Your task to perform on an android device: Play the last video I watched on Youtube Image 0: 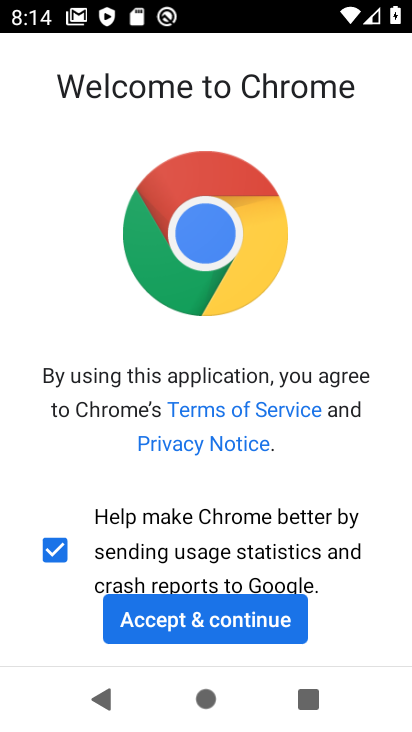
Step 0: press home button
Your task to perform on an android device: Play the last video I watched on Youtube Image 1: 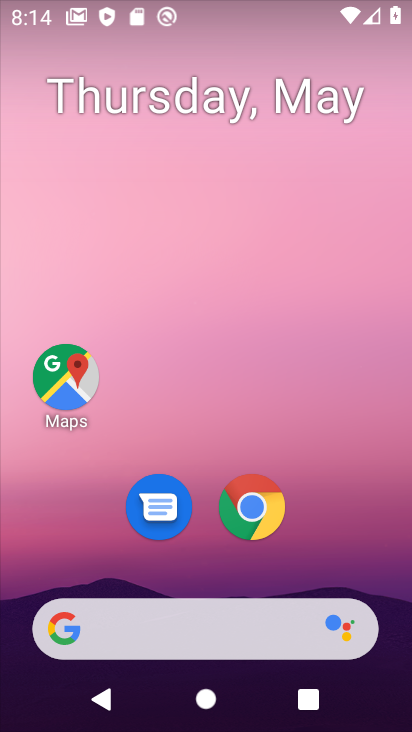
Step 1: drag from (375, 540) to (365, 102)
Your task to perform on an android device: Play the last video I watched on Youtube Image 2: 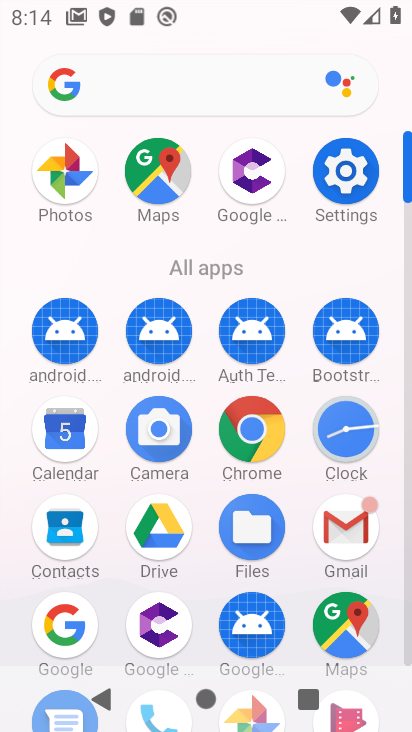
Step 2: drag from (289, 559) to (298, 89)
Your task to perform on an android device: Play the last video I watched on Youtube Image 3: 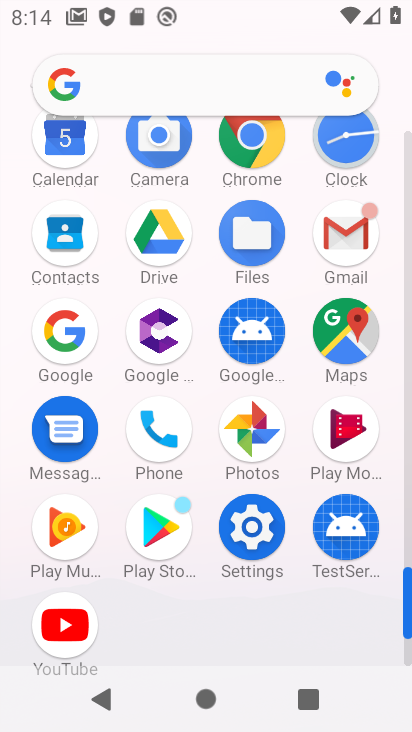
Step 3: click (72, 635)
Your task to perform on an android device: Play the last video I watched on Youtube Image 4: 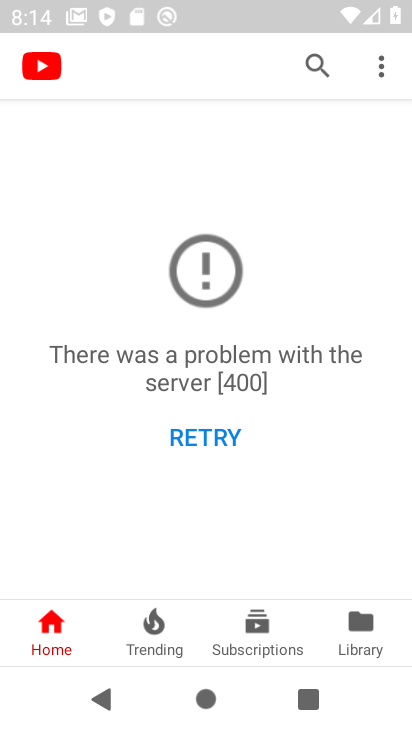
Step 4: click (359, 636)
Your task to perform on an android device: Play the last video I watched on Youtube Image 5: 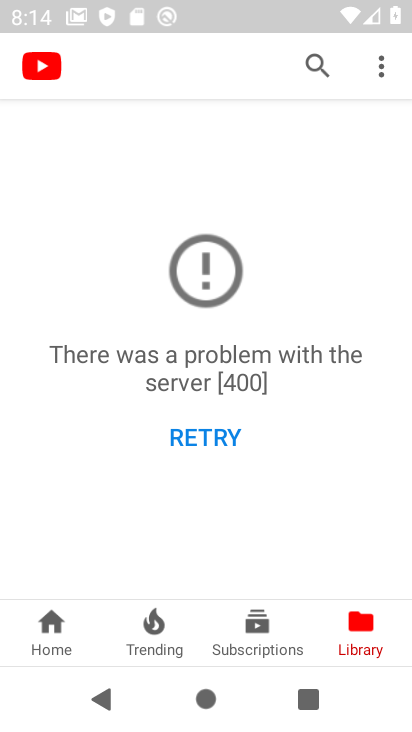
Step 5: task complete